Your task to perform on an android device: find which apps use the phone's location Image 0: 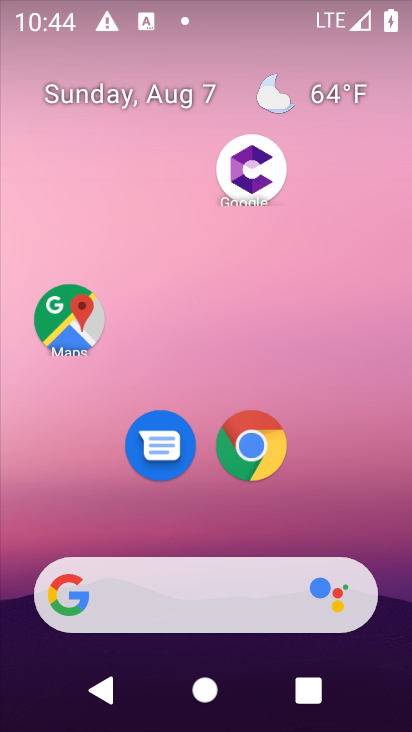
Step 0: press home button
Your task to perform on an android device: find which apps use the phone's location Image 1: 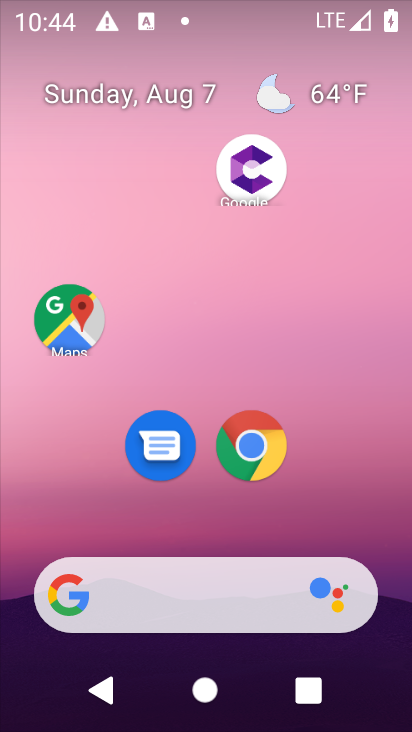
Step 1: drag from (202, 530) to (191, 76)
Your task to perform on an android device: find which apps use the phone's location Image 2: 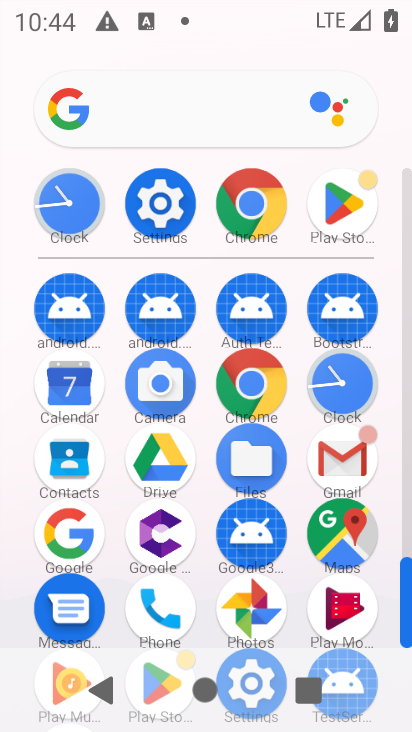
Step 2: click (162, 200)
Your task to perform on an android device: find which apps use the phone's location Image 3: 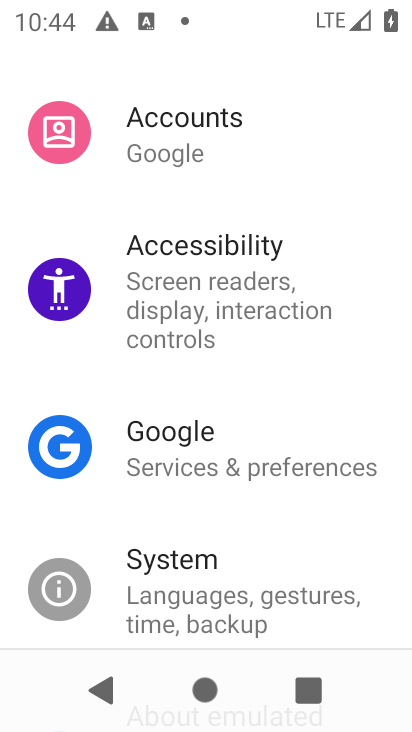
Step 3: drag from (200, 169) to (258, 620)
Your task to perform on an android device: find which apps use the phone's location Image 4: 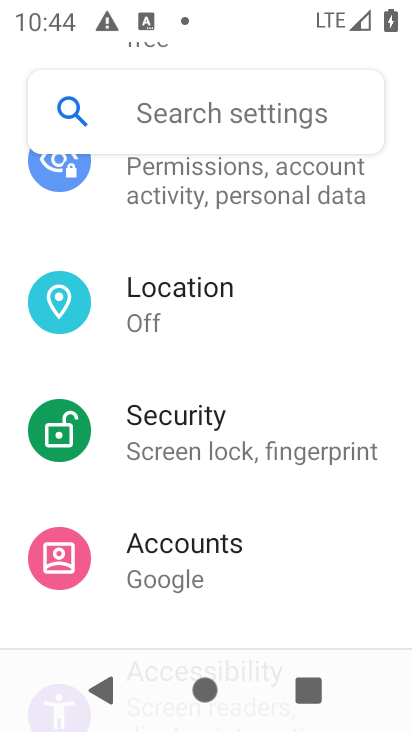
Step 4: click (210, 311)
Your task to perform on an android device: find which apps use the phone's location Image 5: 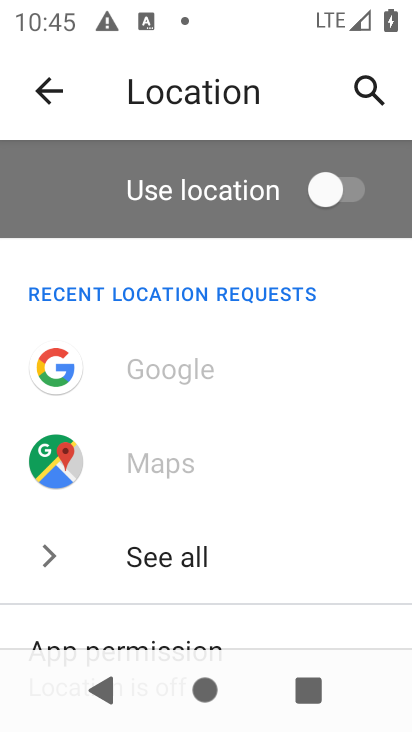
Step 5: drag from (226, 599) to (244, 297)
Your task to perform on an android device: find which apps use the phone's location Image 6: 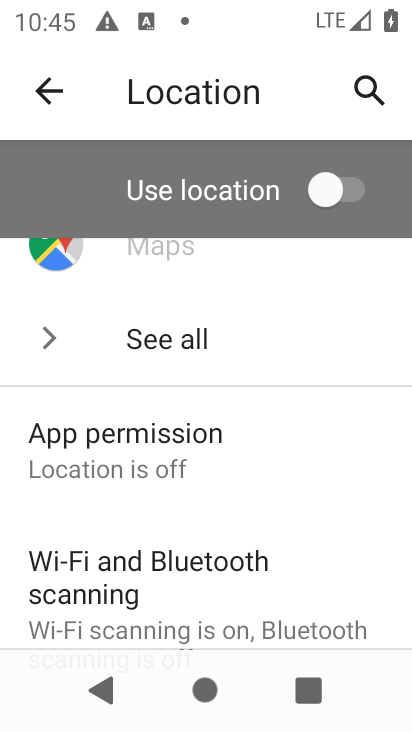
Step 6: click (209, 458)
Your task to perform on an android device: find which apps use the phone's location Image 7: 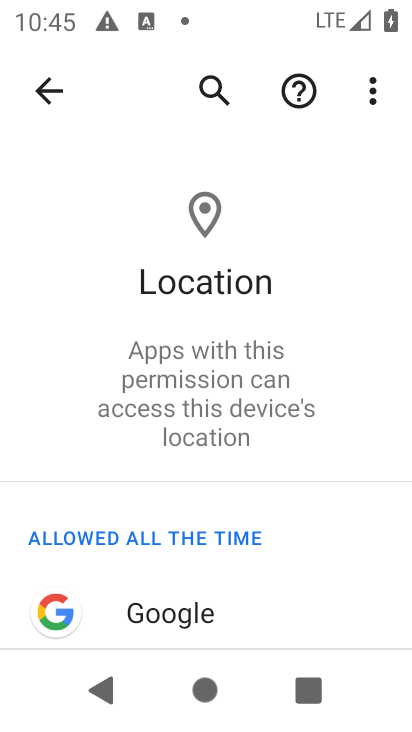
Step 7: task complete